Your task to perform on an android device: check storage Image 0: 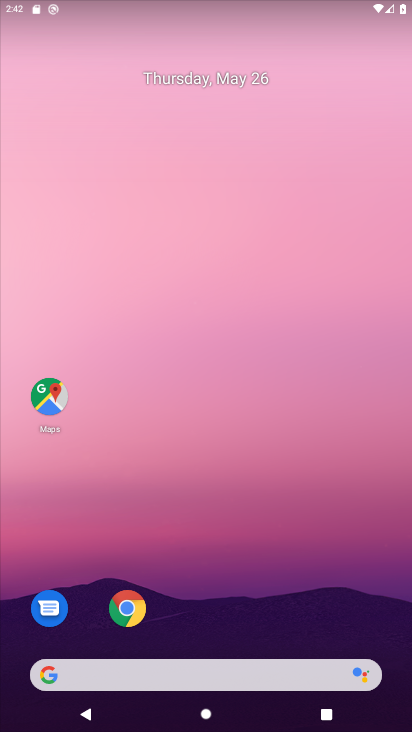
Step 0: drag from (241, 654) to (283, 217)
Your task to perform on an android device: check storage Image 1: 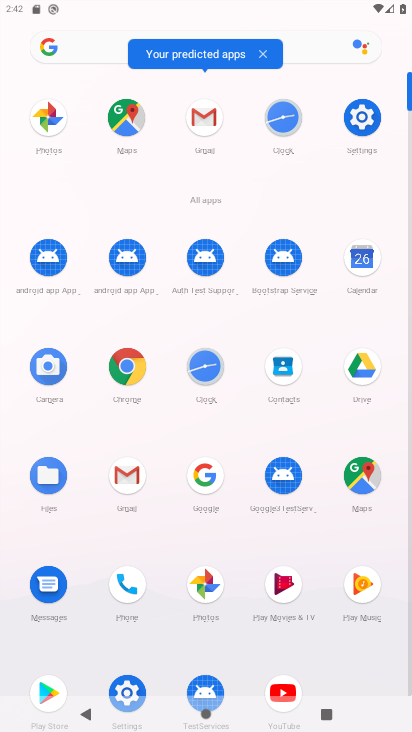
Step 1: click (362, 150)
Your task to perform on an android device: check storage Image 2: 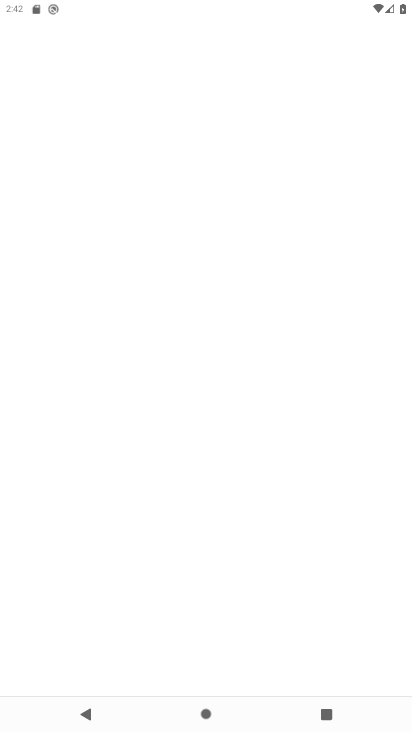
Step 2: click (355, 112)
Your task to perform on an android device: check storage Image 3: 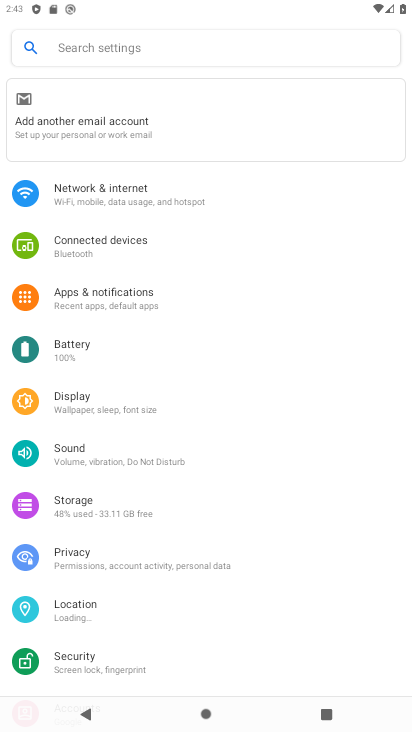
Step 3: click (32, 42)
Your task to perform on an android device: check storage Image 4: 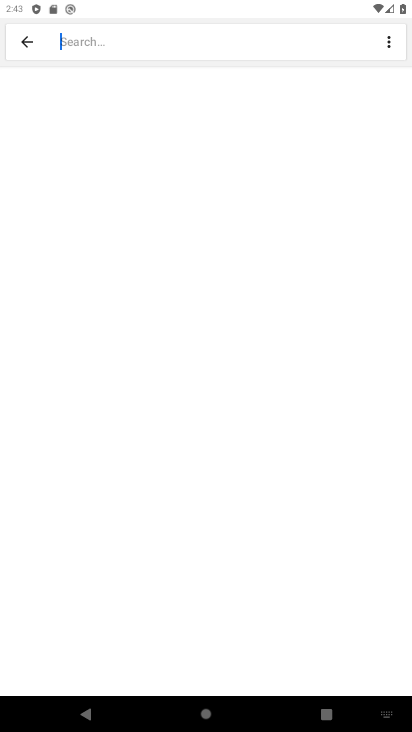
Step 4: click (24, 42)
Your task to perform on an android device: check storage Image 5: 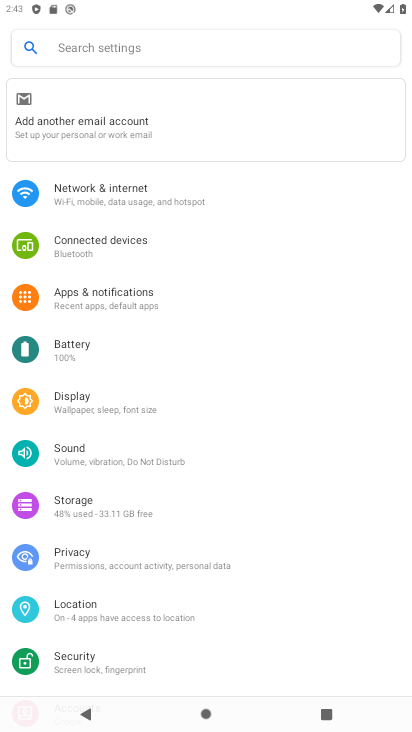
Step 5: click (98, 513)
Your task to perform on an android device: check storage Image 6: 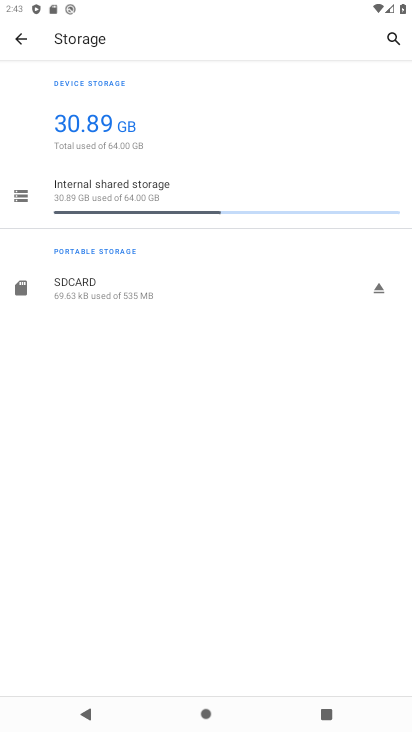
Step 6: task complete